Your task to perform on an android device: Go to Reddit.com Image 0: 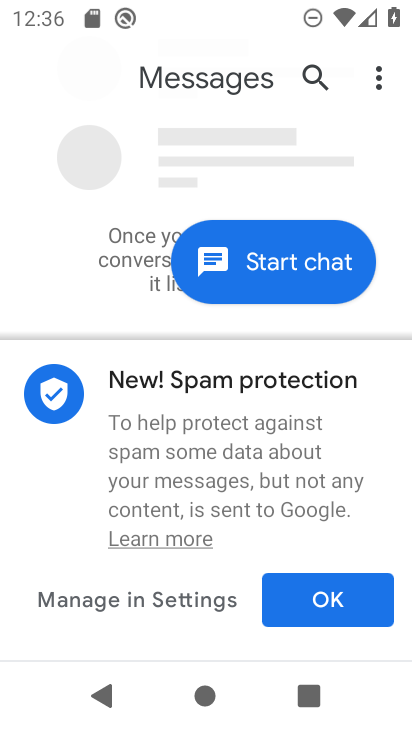
Step 0: press back button
Your task to perform on an android device: Go to Reddit.com Image 1: 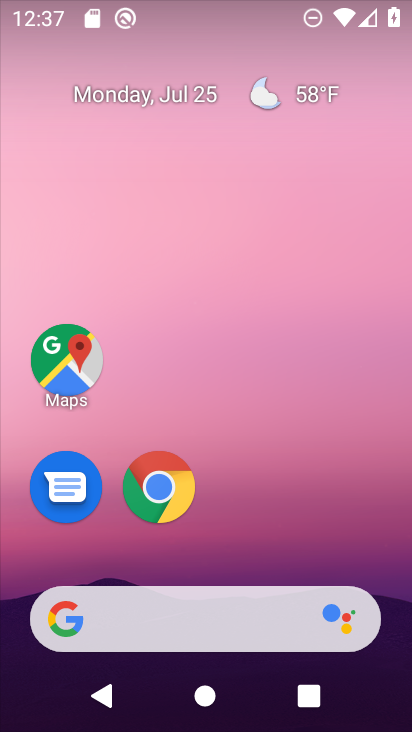
Step 1: click (163, 489)
Your task to perform on an android device: Go to Reddit.com Image 2: 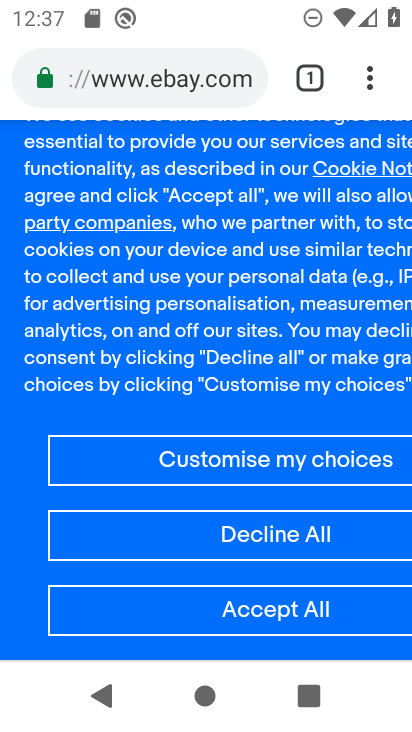
Step 2: click (308, 75)
Your task to perform on an android device: Go to Reddit.com Image 3: 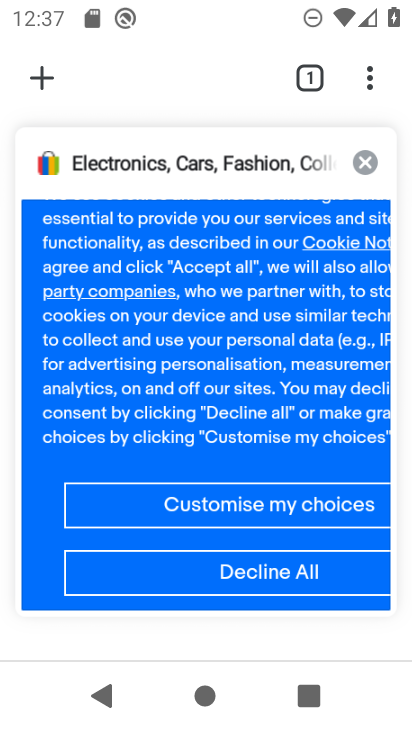
Step 3: click (35, 85)
Your task to perform on an android device: Go to Reddit.com Image 4: 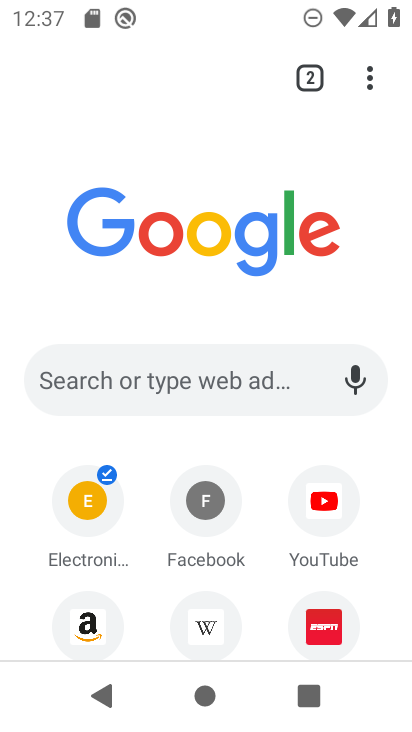
Step 4: click (124, 377)
Your task to perform on an android device: Go to Reddit.com Image 5: 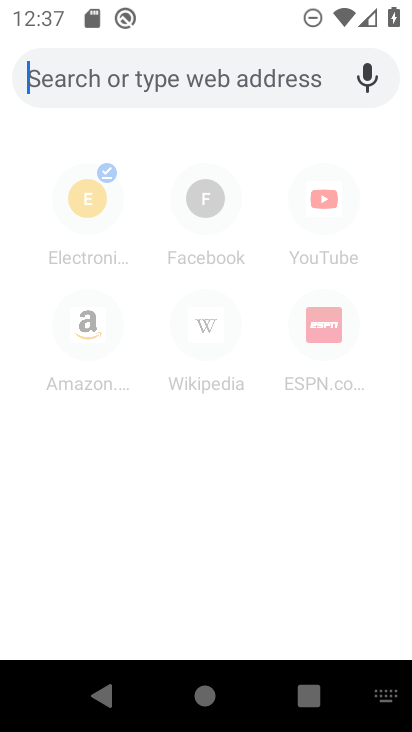
Step 5: type "reddit.com"
Your task to perform on an android device: Go to Reddit.com Image 6: 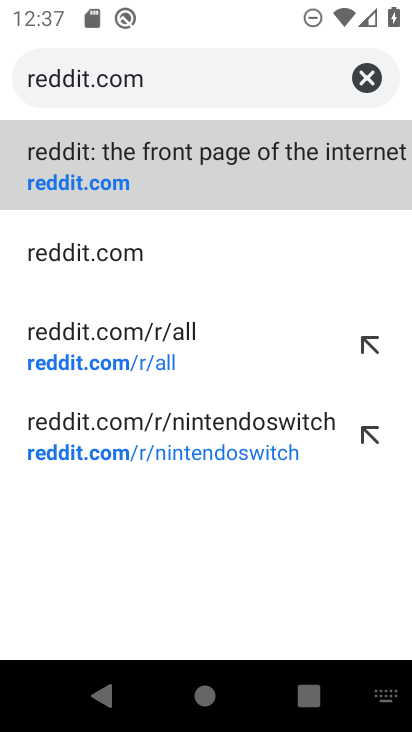
Step 6: click (142, 187)
Your task to perform on an android device: Go to Reddit.com Image 7: 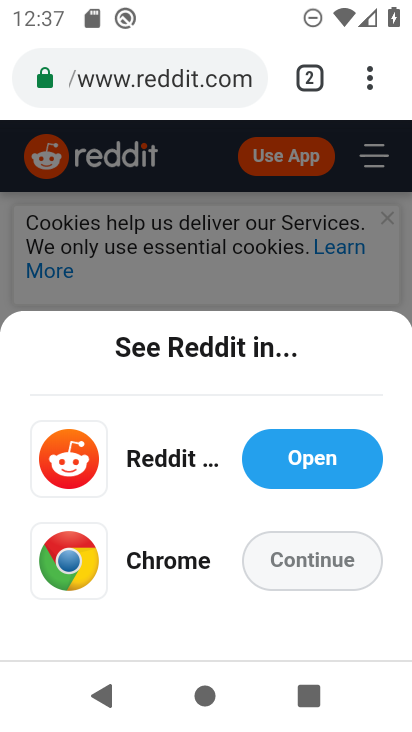
Step 7: task complete